Your task to perform on an android device: toggle notifications settings in the gmail app Image 0: 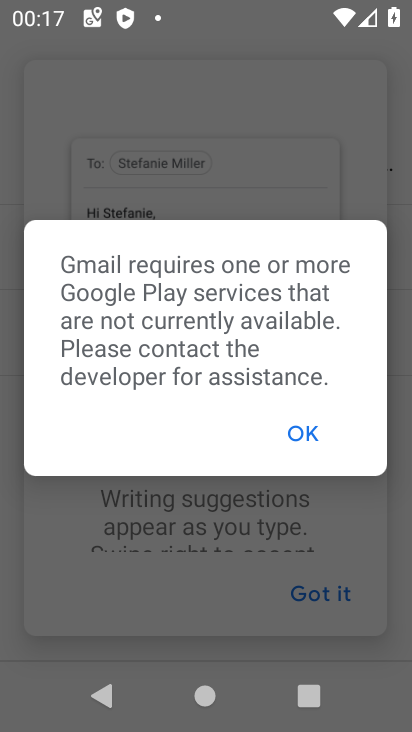
Step 0: press home button
Your task to perform on an android device: toggle notifications settings in the gmail app Image 1: 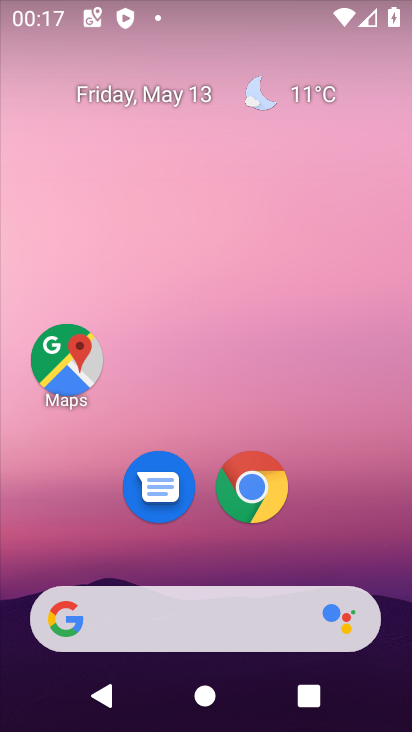
Step 1: drag from (222, 532) to (200, 86)
Your task to perform on an android device: toggle notifications settings in the gmail app Image 2: 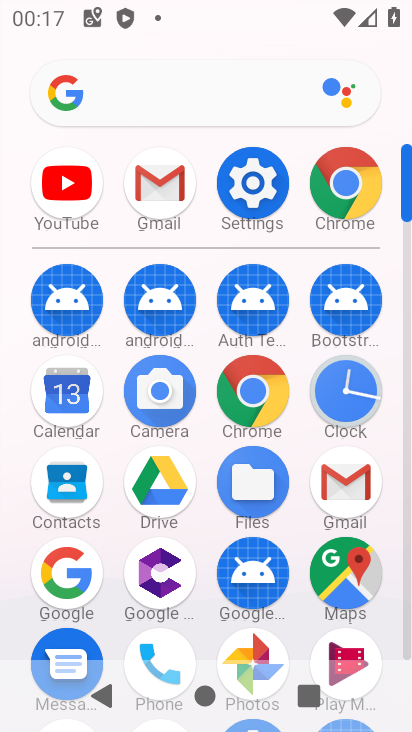
Step 2: click (348, 485)
Your task to perform on an android device: toggle notifications settings in the gmail app Image 3: 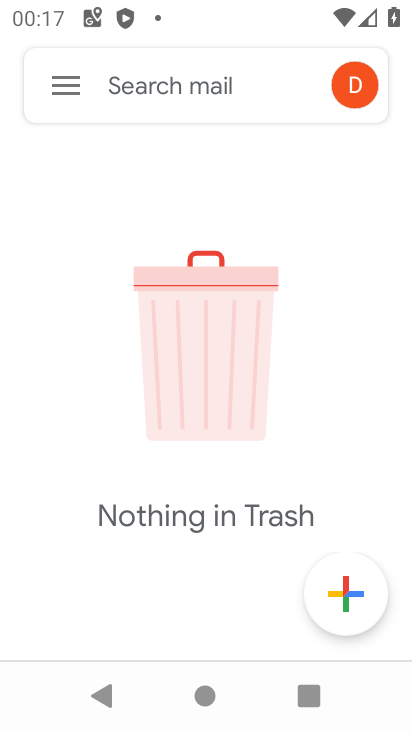
Step 3: click (75, 74)
Your task to perform on an android device: toggle notifications settings in the gmail app Image 4: 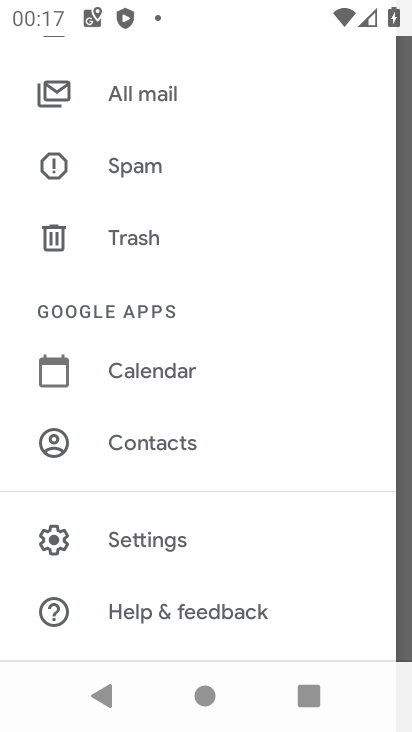
Step 4: click (141, 546)
Your task to perform on an android device: toggle notifications settings in the gmail app Image 5: 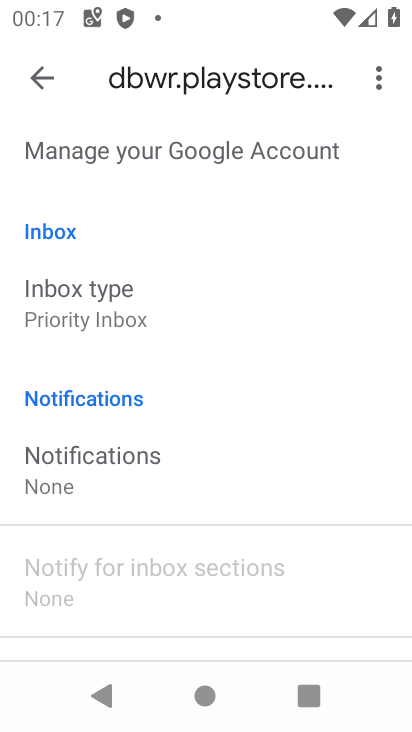
Step 5: click (171, 446)
Your task to perform on an android device: toggle notifications settings in the gmail app Image 6: 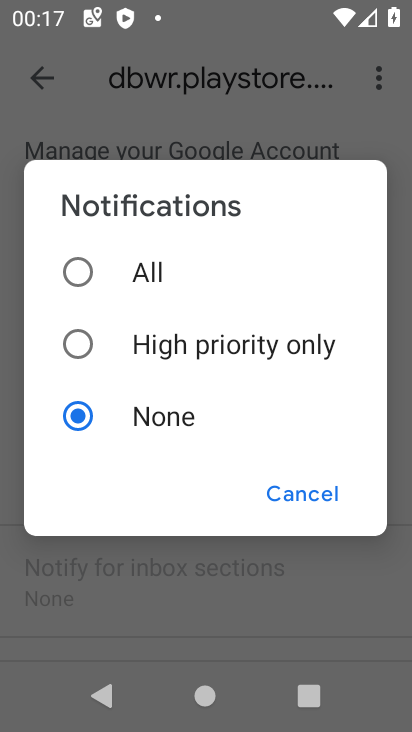
Step 6: click (129, 329)
Your task to perform on an android device: toggle notifications settings in the gmail app Image 7: 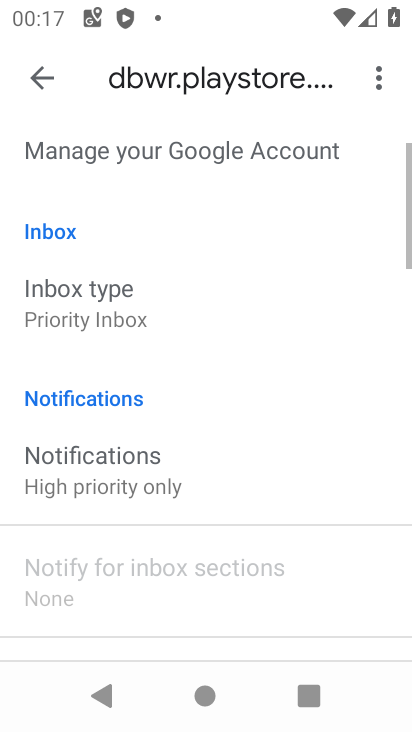
Step 7: task complete